Your task to perform on an android device: turn off notifications in google photos Image 0: 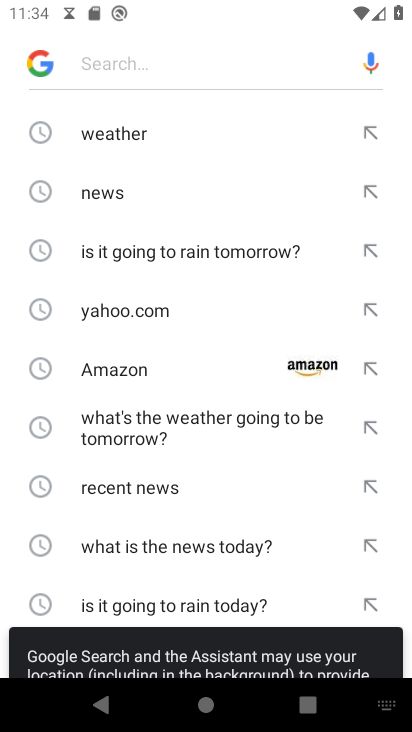
Step 0: press home button
Your task to perform on an android device: turn off notifications in google photos Image 1: 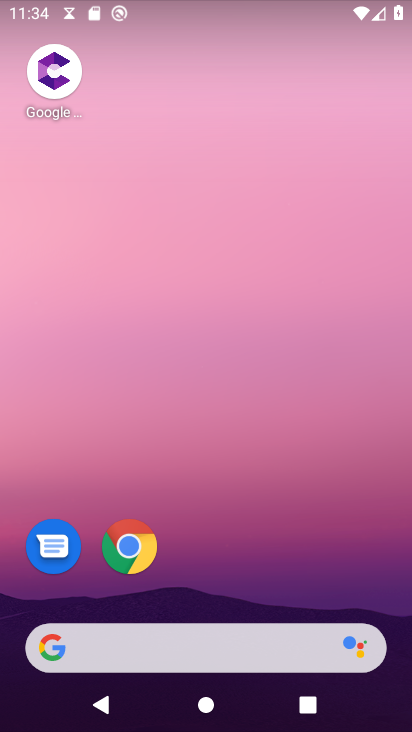
Step 1: drag from (215, 609) to (319, 108)
Your task to perform on an android device: turn off notifications in google photos Image 2: 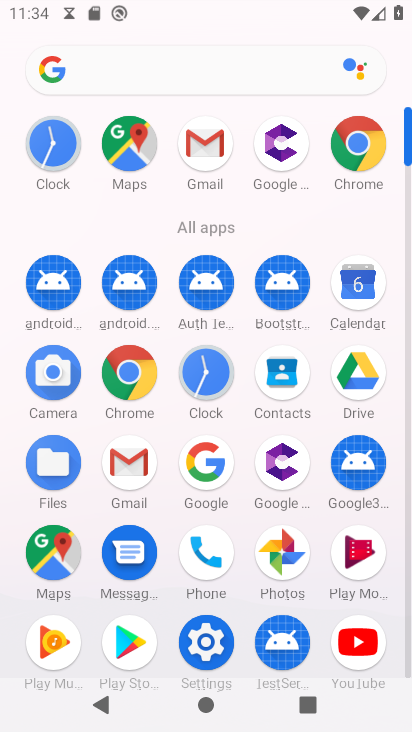
Step 2: click (287, 569)
Your task to perform on an android device: turn off notifications in google photos Image 3: 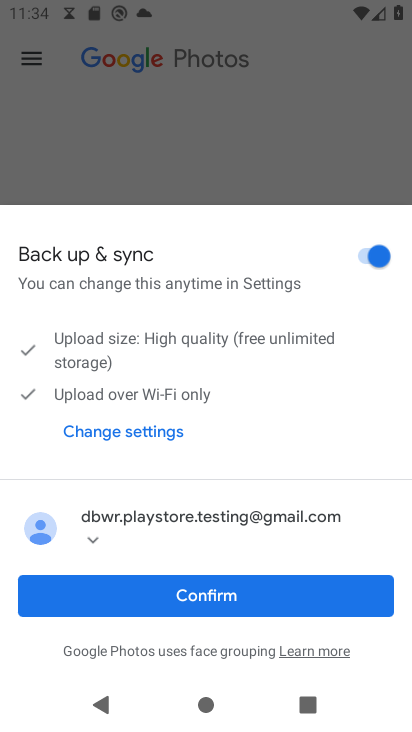
Step 3: click (228, 595)
Your task to perform on an android device: turn off notifications in google photos Image 4: 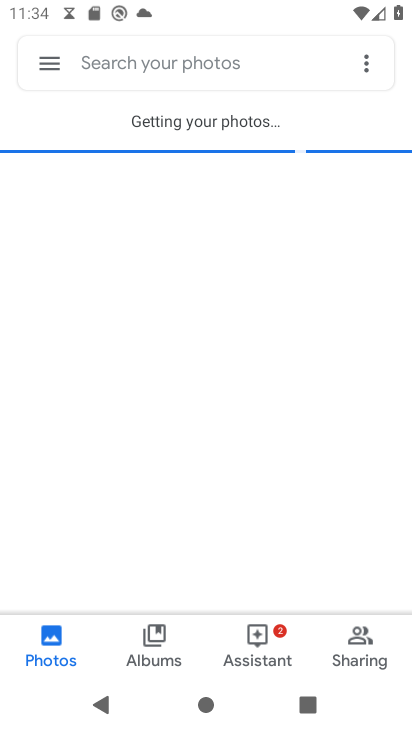
Step 4: click (45, 65)
Your task to perform on an android device: turn off notifications in google photos Image 5: 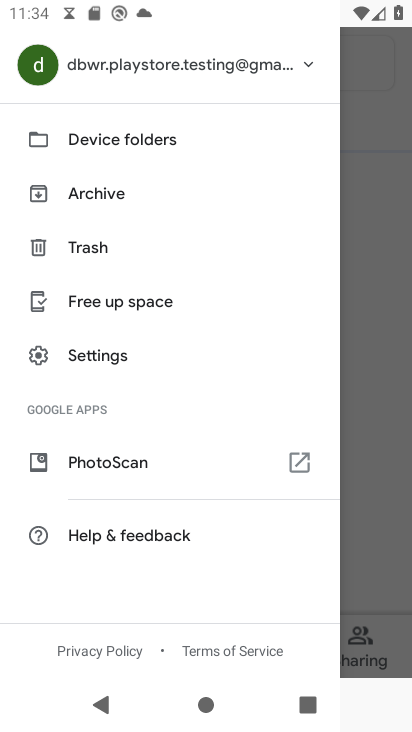
Step 5: click (95, 353)
Your task to perform on an android device: turn off notifications in google photos Image 6: 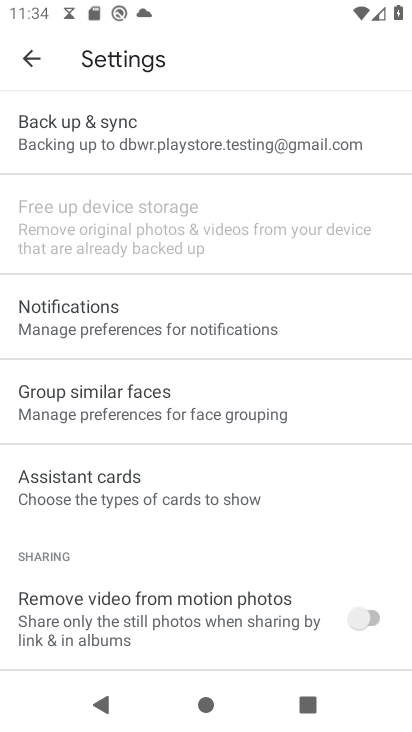
Step 6: click (138, 313)
Your task to perform on an android device: turn off notifications in google photos Image 7: 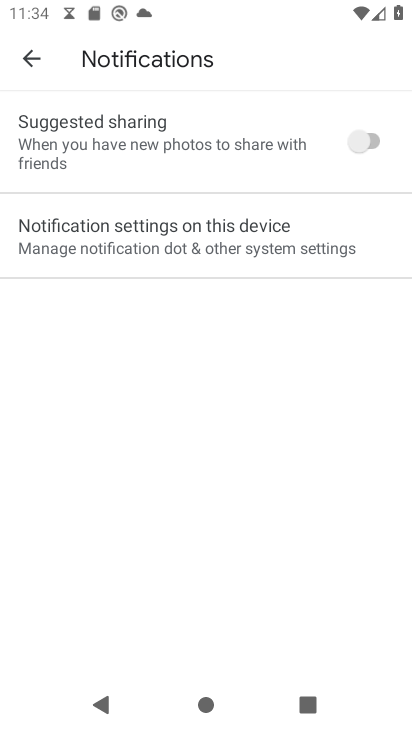
Step 7: click (152, 254)
Your task to perform on an android device: turn off notifications in google photos Image 8: 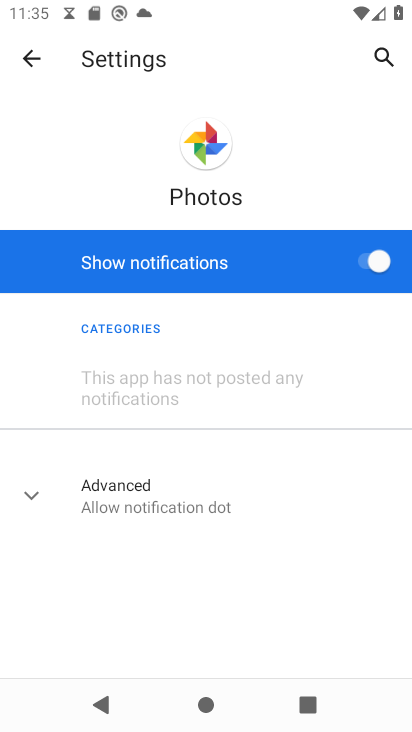
Step 8: click (342, 268)
Your task to perform on an android device: turn off notifications in google photos Image 9: 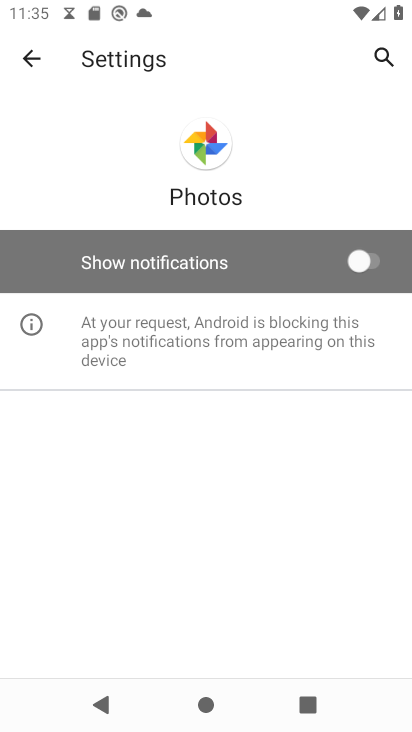
Step 9: task complete